Your task to perform on an android device: open a bookmark in the chrome app Image 0: 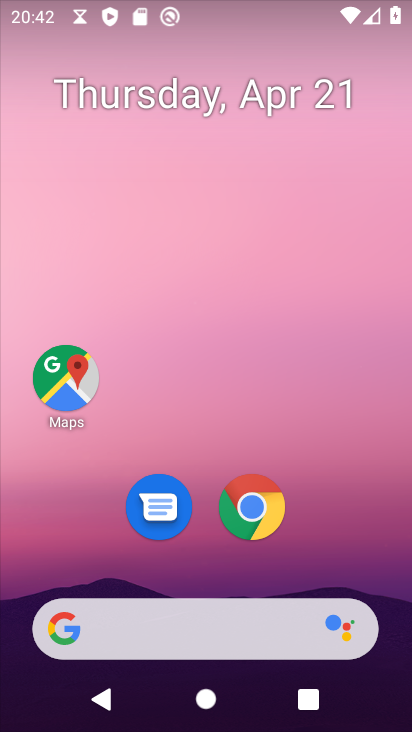
Step 0: click (253, 502)
Your task to perform on an android device: open a bookmark in the chrome app Image 1: 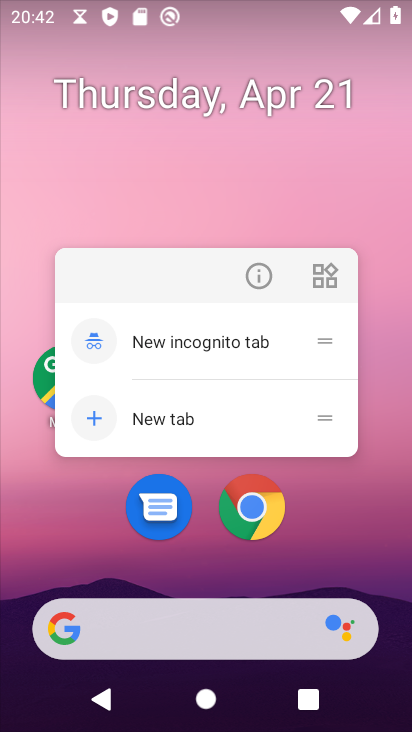
Step 1: click (249, 505)
Your task to perform on an android device: open a bookmark in the chrome app Image 2: 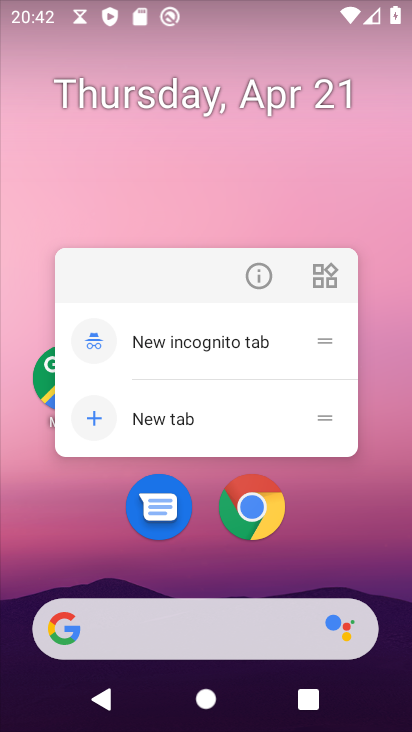
Step 2: click (254, 513)
Your task to perform on an android device: open a bookmark in the chrome app Image 3: 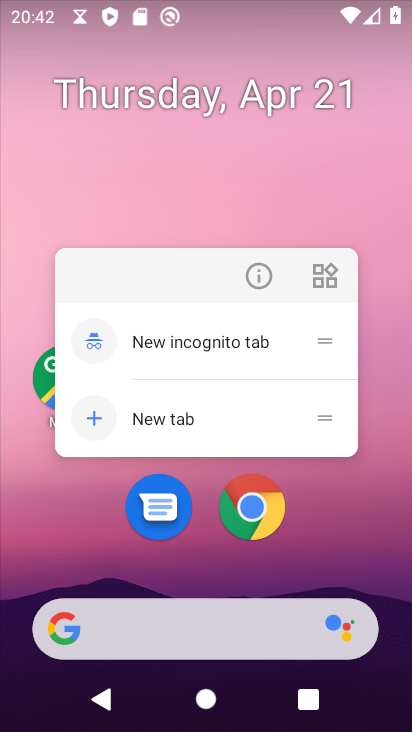
Step 3: click (254, 511)
Your task to perform on an android device: open a bookmark in the chrome app Image 4: 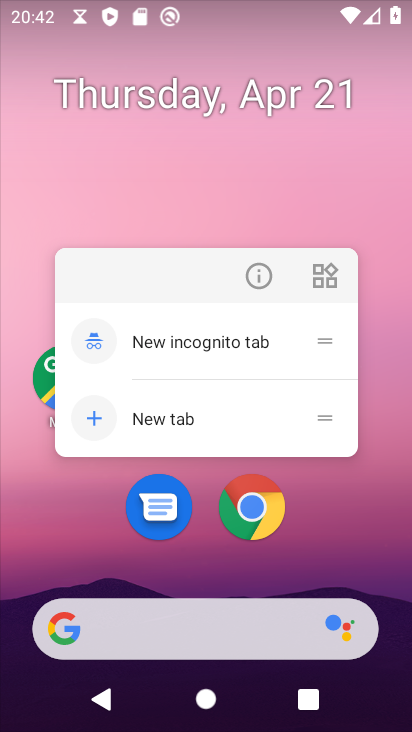
Step 4: click (256, 506)
Your task to perform on an android device: open a bookmark in the chrome app Image 5: 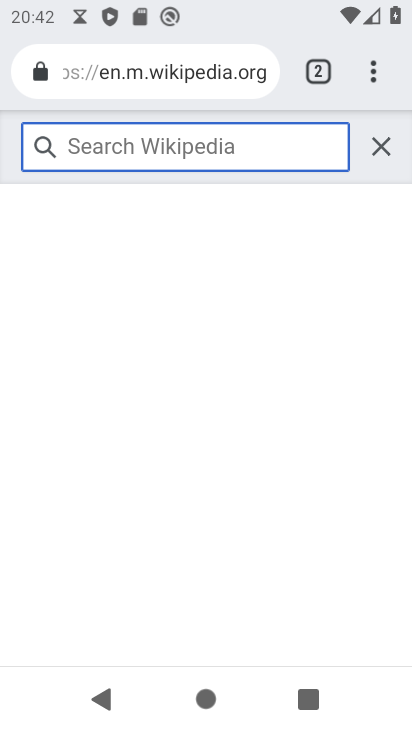
Step 5: drag from (374, 66) to (168, 354)
Your task to perform on an android device: open a bookmark in the chrome app Image 6: 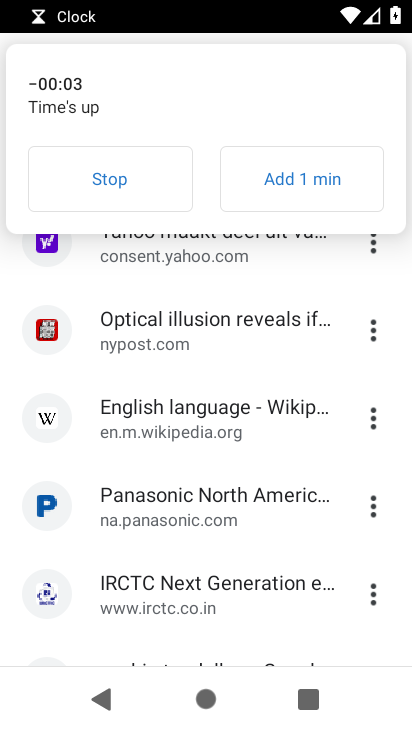
Step 6: click (138, 195)
Your task to perform on an android device: open a bookmark in the chrome app Image 7: 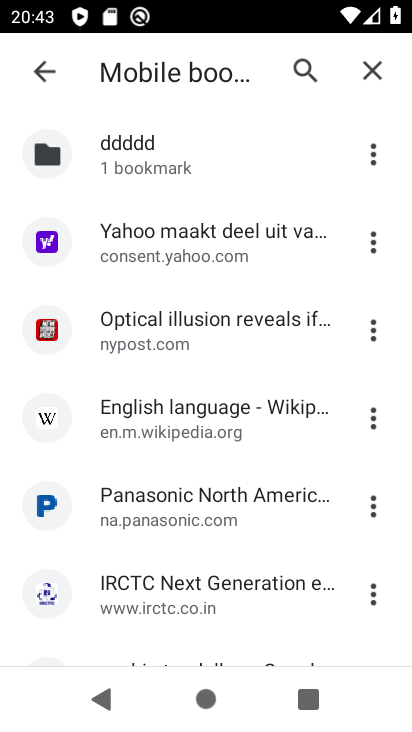
Step 7: click (187, 243)
Your task to perform on an android device: open a bookmark in the chrome app Image 8: 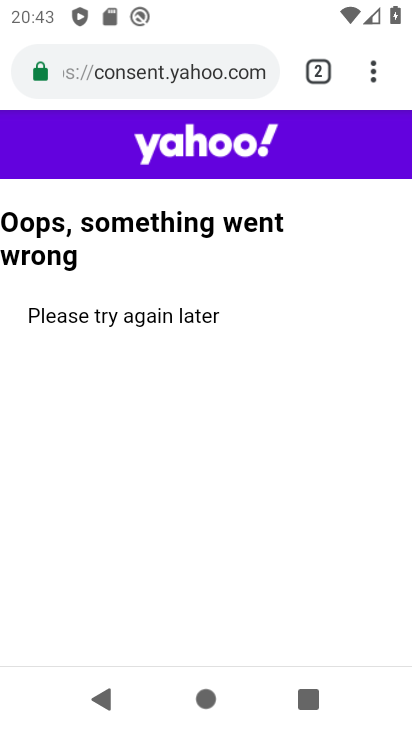
Step 8: task complete